Your task to perform on an android device: Open Google Chrome and open the bookmarks view Image 0: 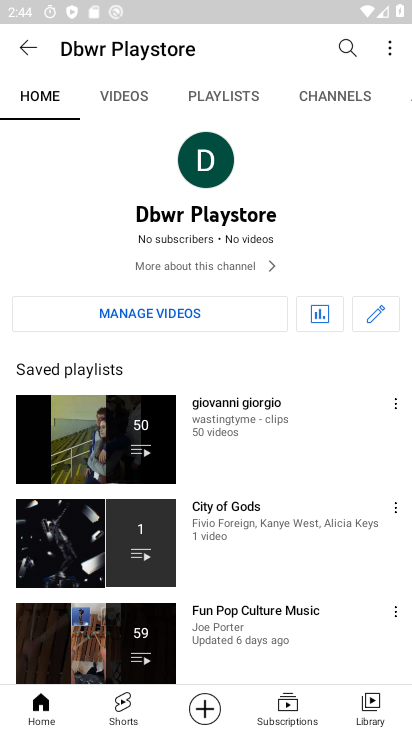
Step 0: press home button
Your task to perform on an android device: Open Google Chrome and open the bookmarks view Image 1: 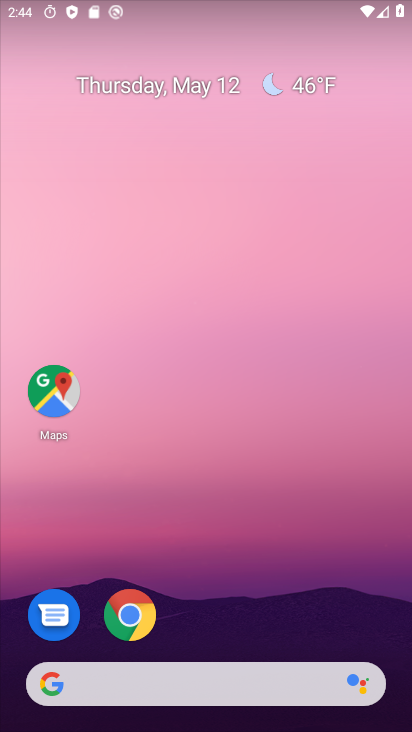
Step 1: click (129, 620)
Your task to perform on an android device: Open Google Chrome and open the bookmarks view Image 2: 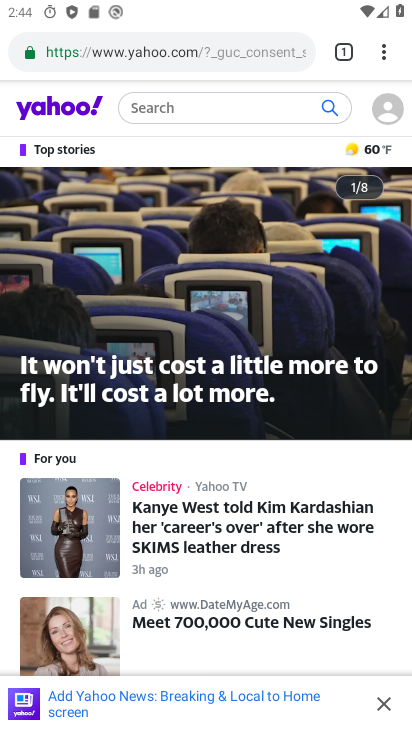
Step 2: click (376, 58)
Your task to perform on an android device: Open Google Chrome and open the bookmarks view Image 3: 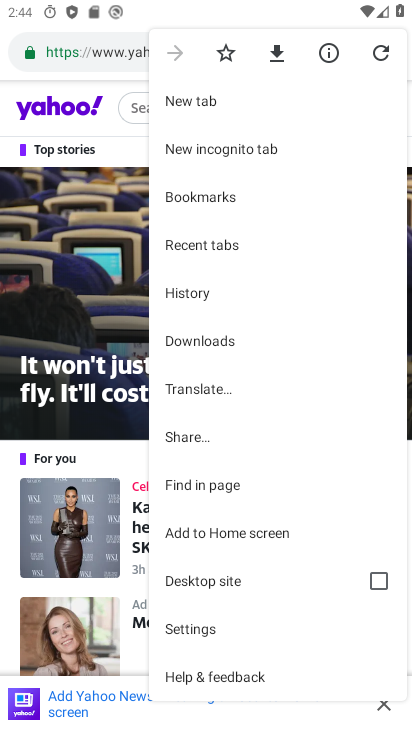
Step 3: click (217, 209)
Your task to perform on an android device: Open Google Chrome and open the bookmarks view Image 4: 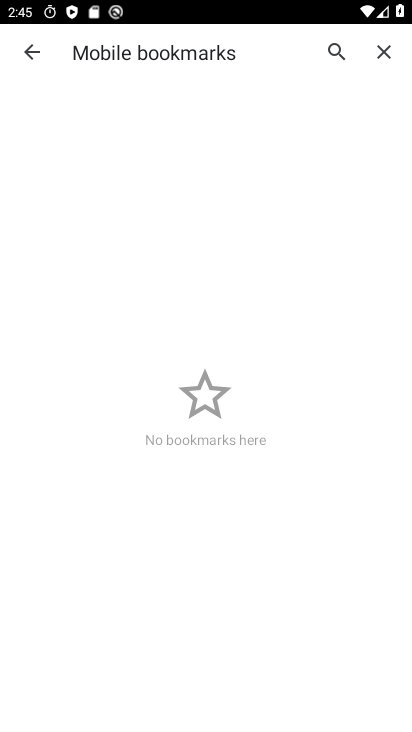
Step 4: task complete